Your task to perform on an android device: Go to CNN.com Image 0: 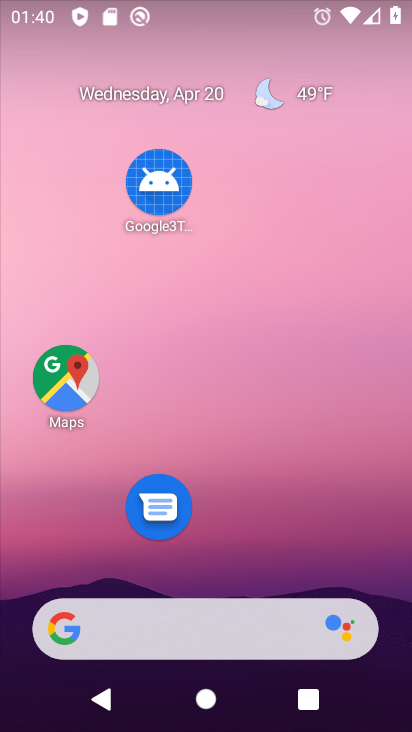
Step 0: click (197, 13)
Your task to perform on an android device: Go to CNN.com Image 1: 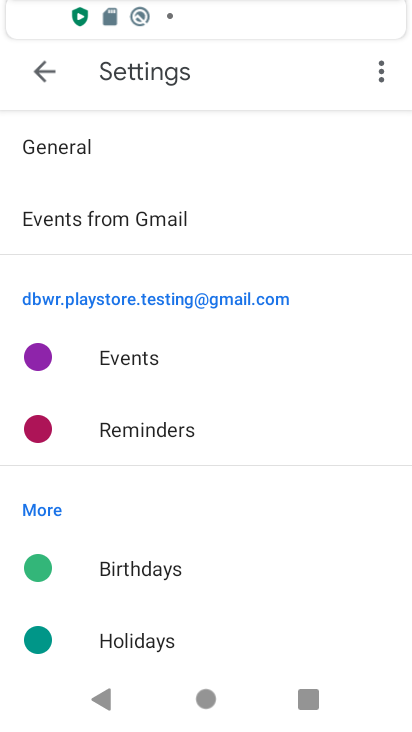
Step 1: press home button
Your task to perform on an android device: Go to CNN.com Image 2: 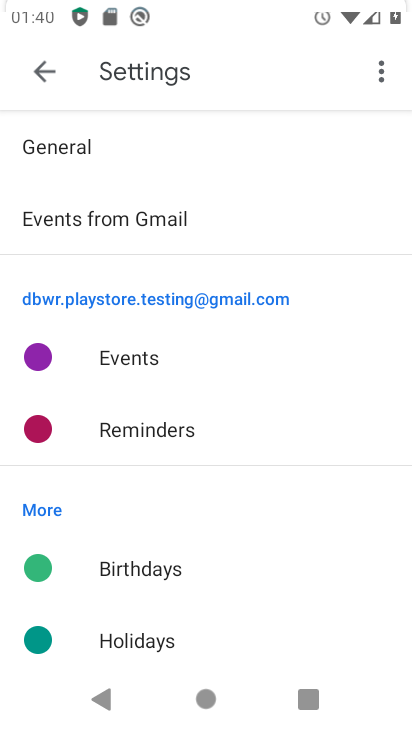
Step 2: drag from (197, 13) to (410, 186)
Your task to perform on an android device: Go to CNN.com Image 3: 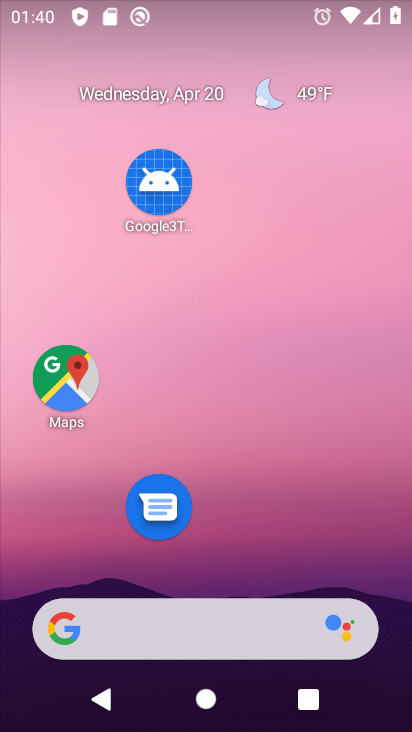
Step 3: drag from (252, 550) to (135, 5)
Your task to perform on an android device: Go to CNN.com Image 4: 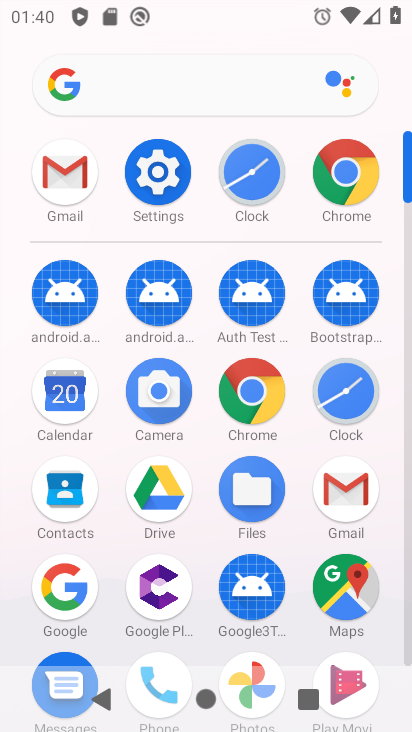
Step 4: click (345, 179)
Your task to perform on an android device: Go to CNN.com Image 5: 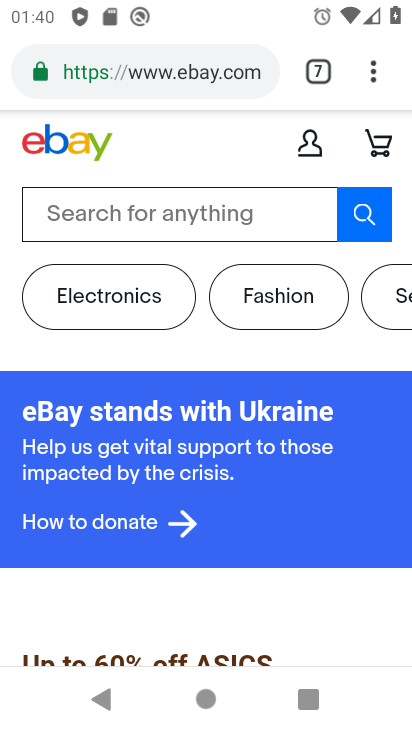
Step 5: click (371, 71)
Your task to perform on an android device: Go to CNN.com Image 6: 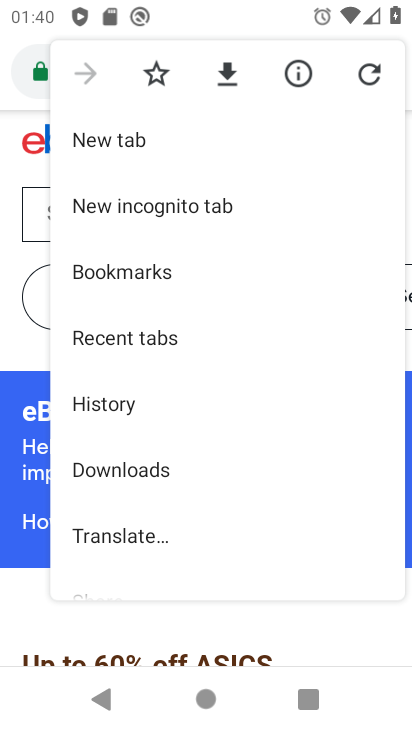
Step 6: click (127, 140)
Your task to perform on an android device: Go to CNN.com Image 7: 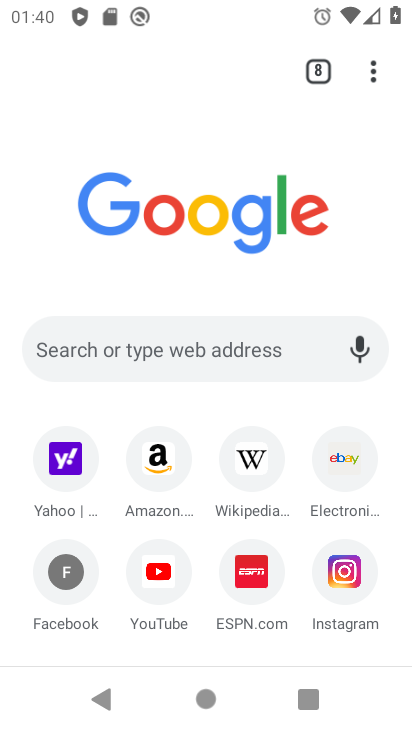
Step 7: click (177, 345)
Your task to perform on an android device: Go to CNN.com Image 8: 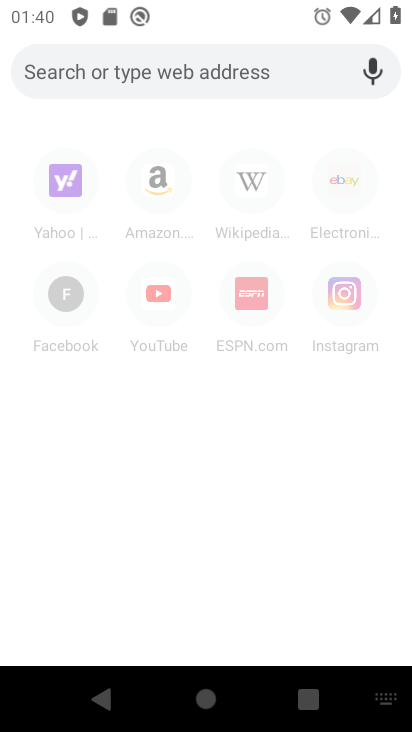
Step 8: type "CNN.com"
Your task to perform on an android device: Go to CNN.com Image 9: 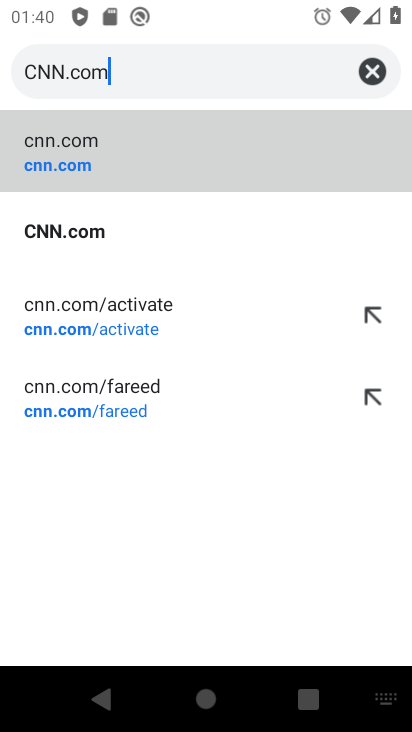
Step 9: click (75, 233)
Your task to perform on an android device: Go to CNN.com Image 10: 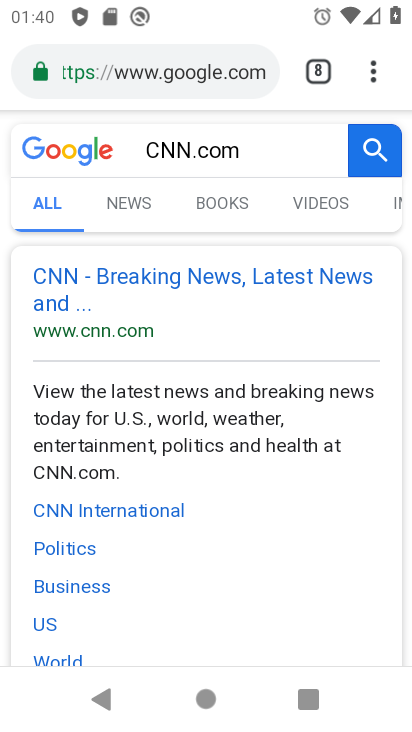
Step 10: task complete